Your task to perform on an android device: Open the calendar app, open the side menu, and click the "Day" option Image 0: 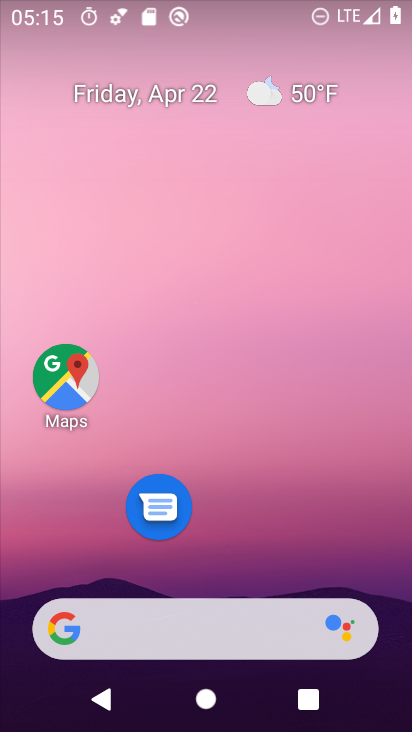
Step 0: drag from (224, 483) to (352, 21)
Your task to perform on an android device: Open the calendar app, open the side menu, and click the "Day" option Image 1: 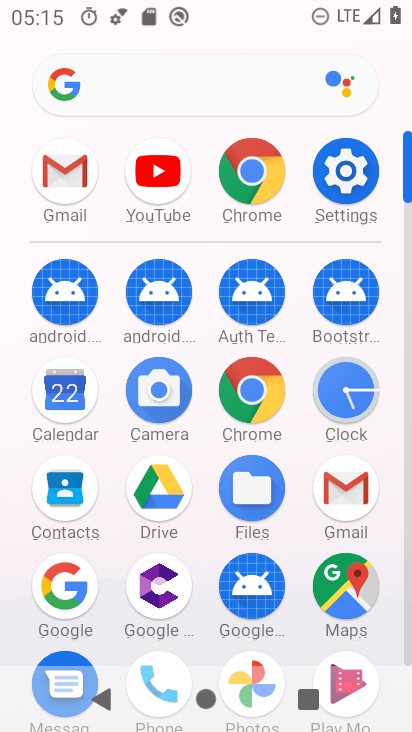
Step 1: click (47, 392)
Your task to perform on an android device: Open the calendar app, open the side menu, and click the "Day" option Image 2: 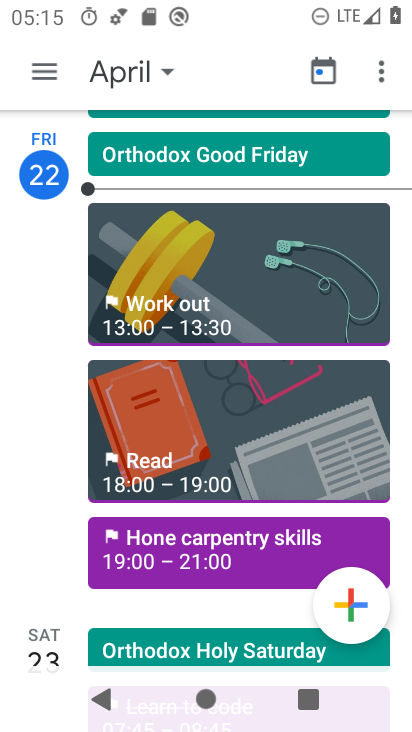
Step 2: click (43, 58)
Your task to perform on an android device: Open the calendar app, open the side menu, and click the "Day" option Image 3: 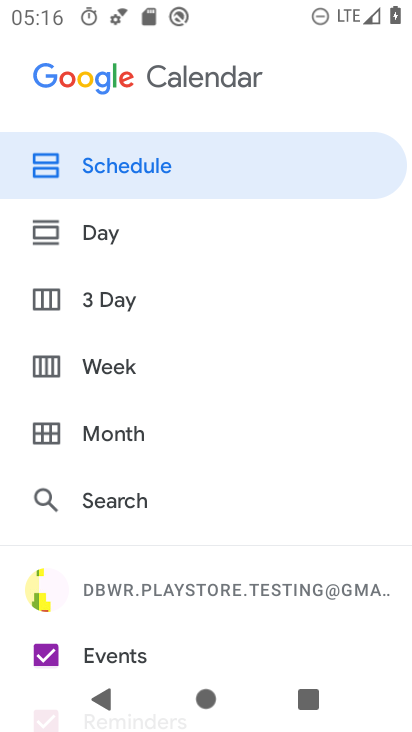
Step 3: click (139, 223)
Your task to perform on an android device: Open the calendar app, open the side menu, and click the "Day" option Image 4: 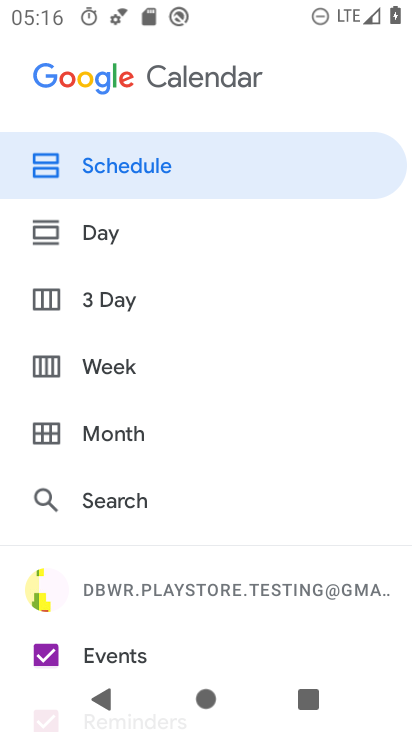
Step 4: click (118, 229)
Your task to perform on an android device: Open the calendar app, open the side menu, and click the "Day" option Image 5: 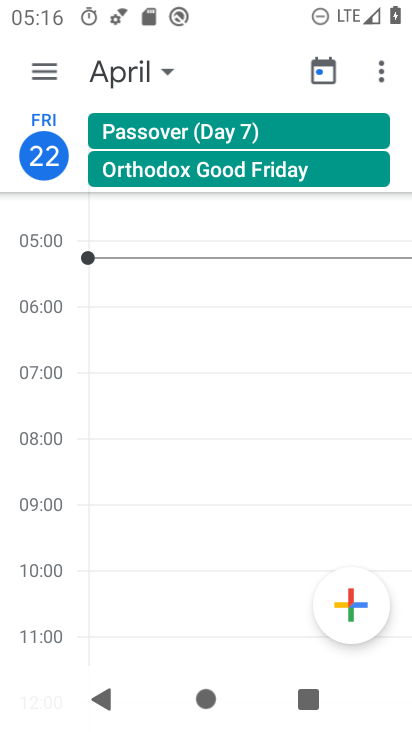
Step 5: task complete